Your task to perform on an android device: Find coffee shops on Maps Image 0: 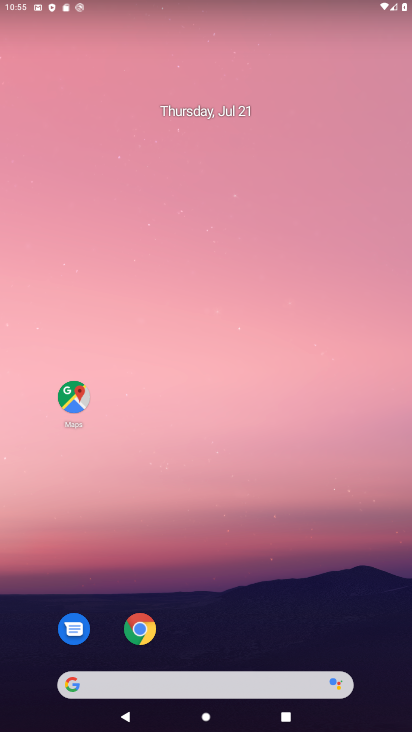
Step 0: drag from (239, 420) to (275, 5)
Your task to perform on an android device: Find coffee shops on Maps Image 1: 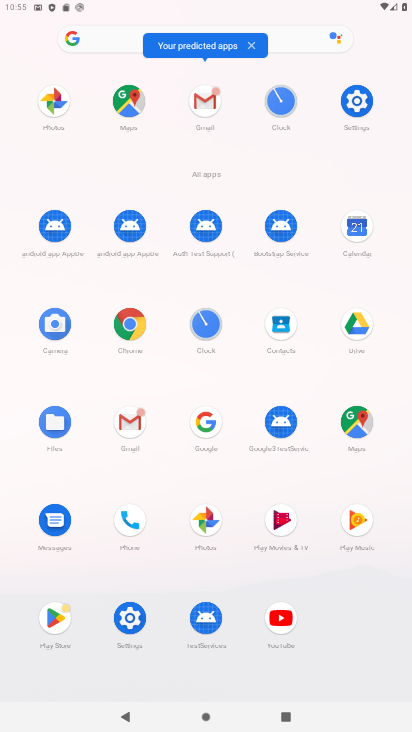
Step 1: click (354, 102)
Your task to perform on an android device: Find coffee shops on Maps Image 2: 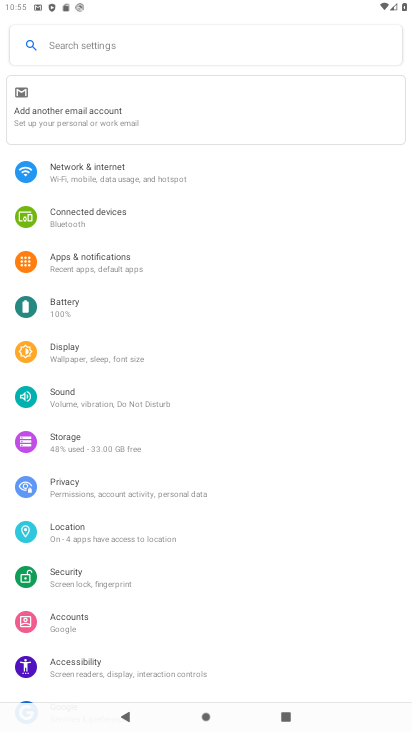
Step 2: click (88, 352)
Your task to perform on an android device: Find coffee shops on Maps Image 3: 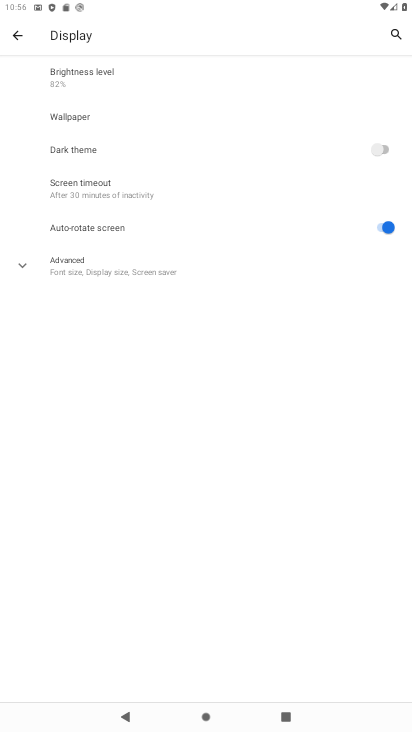
Step 3: click (93, 259)
Your task to perform on an android device: Find coffee shops on Maps Image 4: 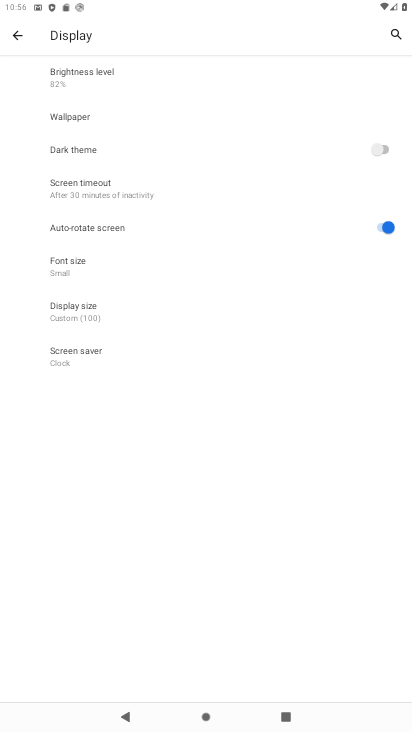
Step 4: click (116, 306)
Your task to perform on an android device: Find coffee shops on Maps Image 5: 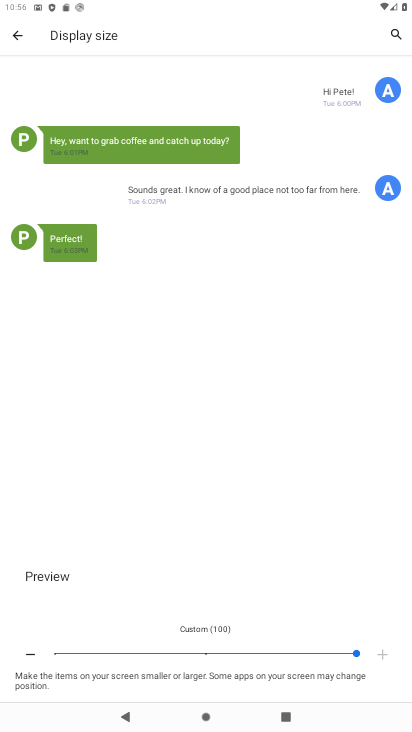
Step 5: click (205, 658)
Your task to perform on an android device: Find coffee shops on Maps Image 6: 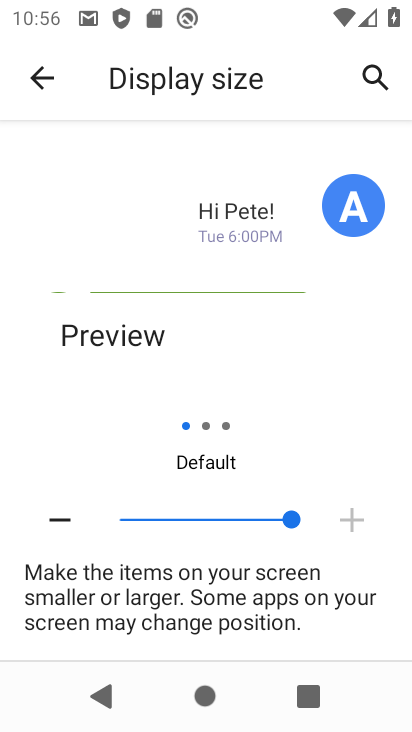
Step 6: click (39, 73)
Your task to perform on an android device: Find coffee shops on Maps Image 7: 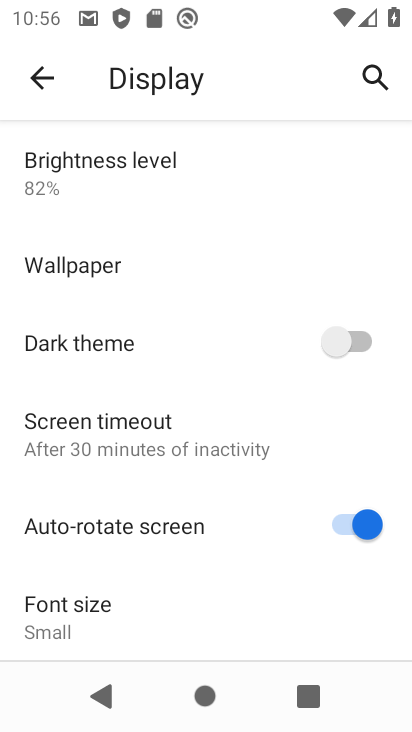
Step 7: press back button
Your task to perform on an android device: Find coffee shops on Maps Image 8: 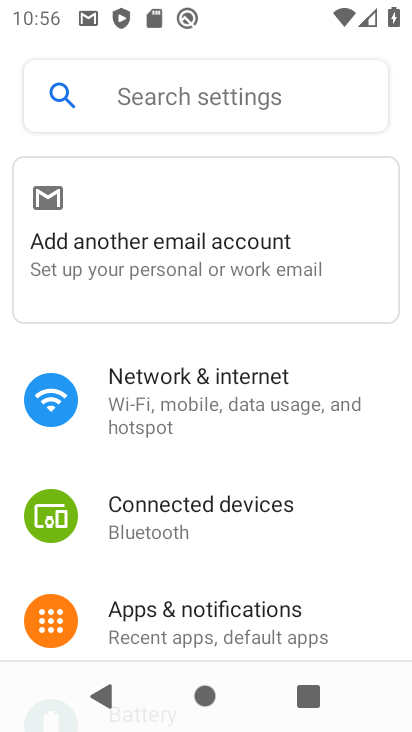
Step 8: press back button
Your task to perform on an android device: Find coffee shops on Maps Image 9: 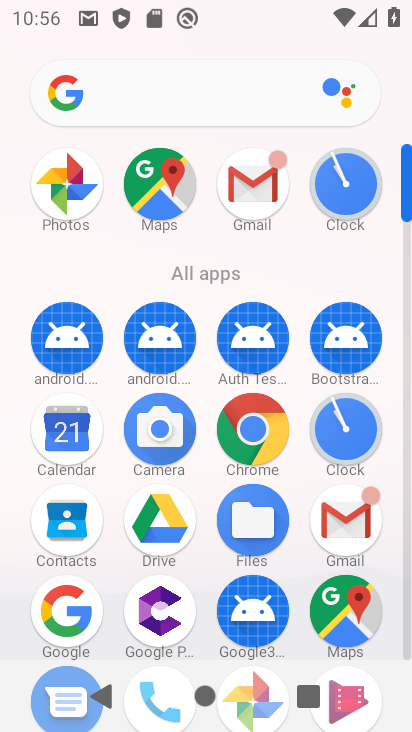
Step 9: click (173, 180)
Your task to perform on an android device: Find coffee shops on Maps Image 10: 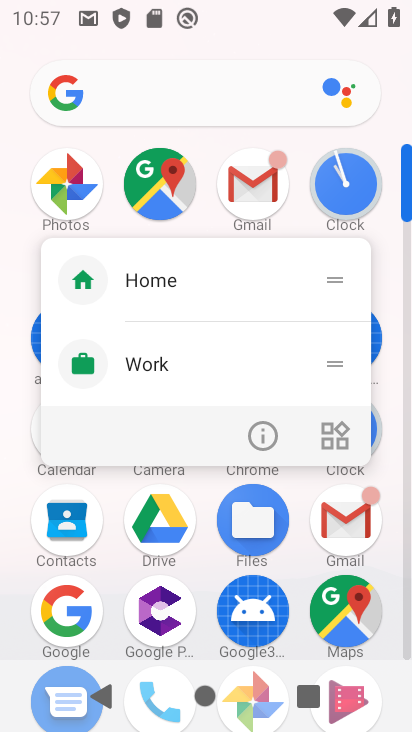
Step 10: click (177, 179)
Your task to perform on an android device: Find coffee shops on Maps Image 11: 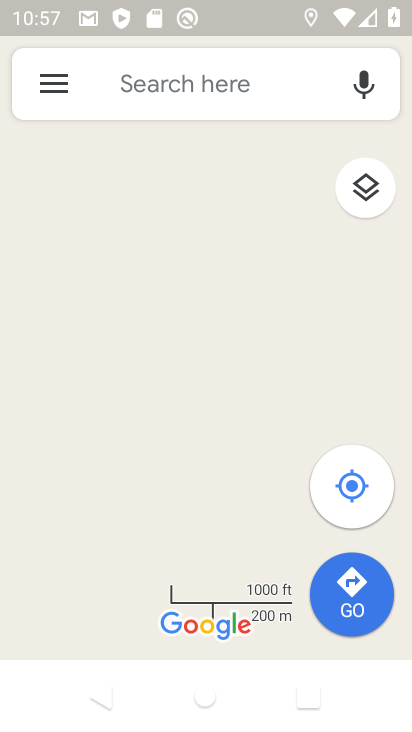
Step 11: click (204, 71)
Your task to perform on an android device: Find coffee shops on Maps Image 12: 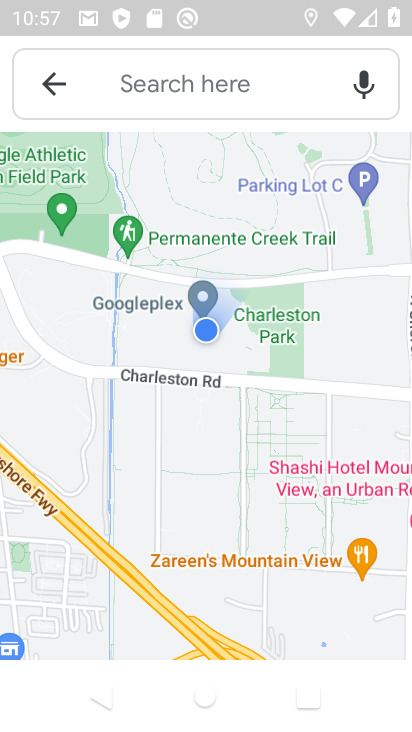
Step 12: click (192, 88)
Your task to perform on an android device: Find coffee shops on Maps Image 13: 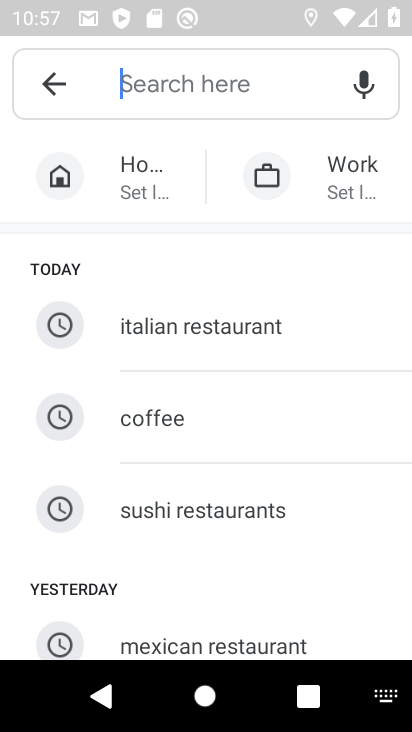
Step 13: click (165, 413)
Your task to perform on an android device: Find coffee shops on Maps Image 14: 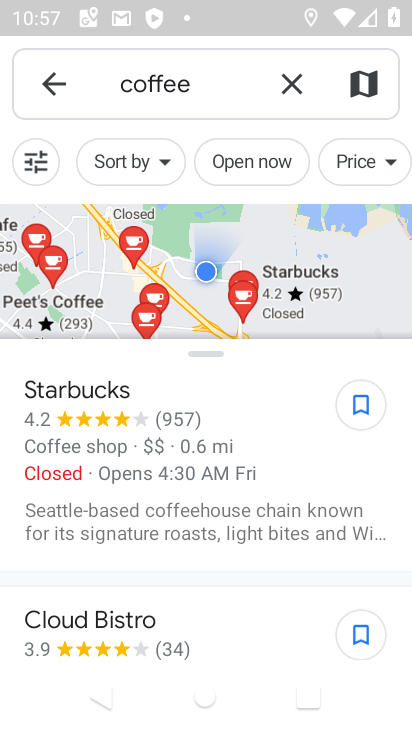
Step 14: task complete